Your task to perform on an android device: turn off javascript in the chrome app Image 0: 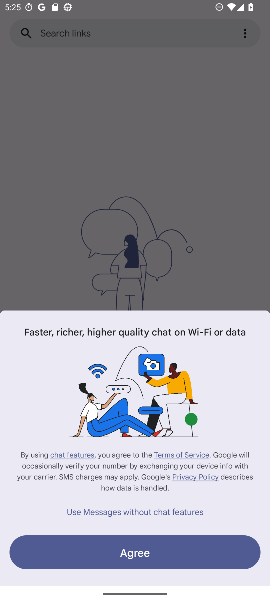
Step 0: press home button
Your task to perform on an android device: turn off javascript in the chrome app Image 1: 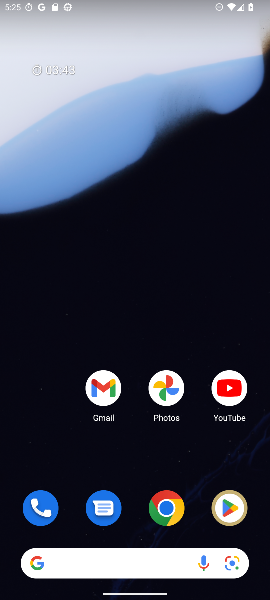
Step 1: drag from (135, 537) to (128, 132)
Your task to perform on an android device: turn off javascript in the chrome app Image 2: 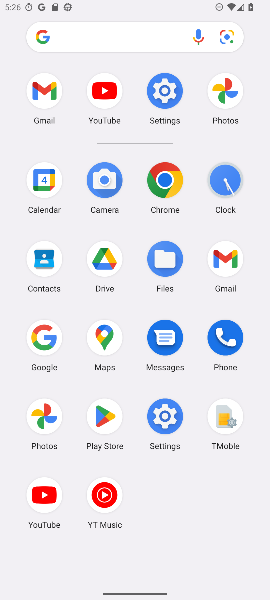
Step 2: click (169, 194)
Your task to perform on an android device: turn off javascript in the chrome app Image 3: 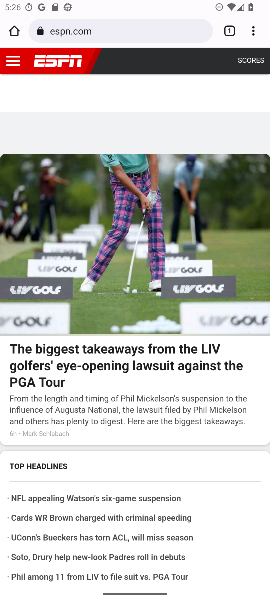
Step 3: task complete